Your task to perform on an android device: Go to display settings Image 0: 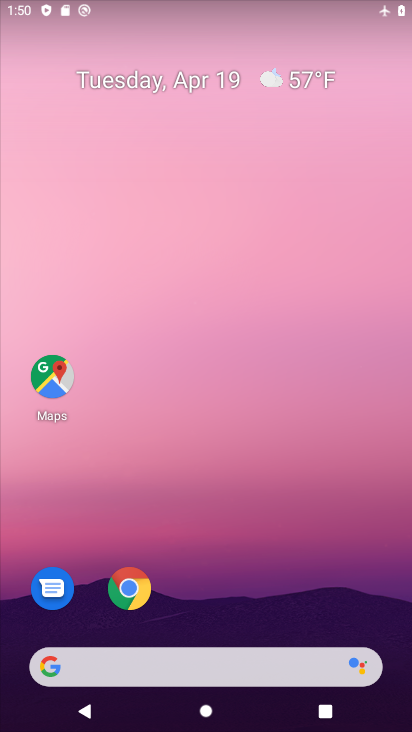
Step 0: drag from (310, 558) to (314, 86)
Your task to perform on an android device: Go to display settings Image 1: 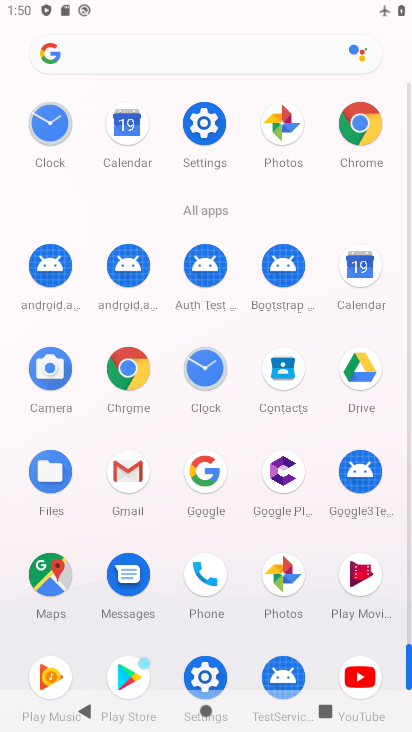
Step 1: click (203, 129)
Your task to perform on an android device: Go to display settings Image 2: 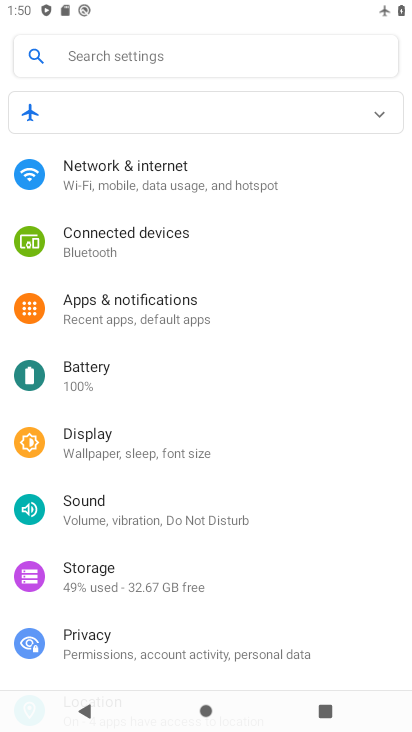
Step 2: click (121, 452)
Your task to perform on an android device: Go to display settings Image 3: 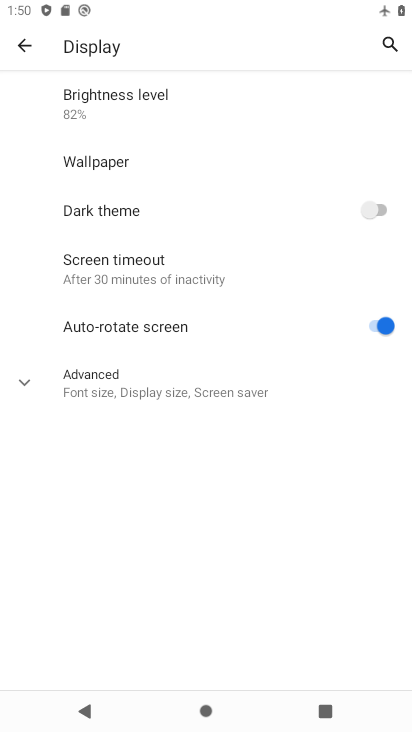
Step 3: task complete